Your task to perform on an android device: What's the weather going to be tomorrow? Image 0: 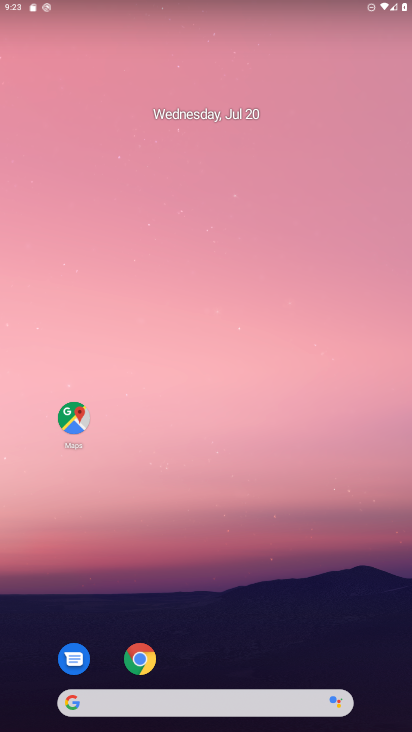
Step 0: drag from (267, 616) to (170, 170)
Your task to perform on an android device: What's the weather going to be tomorrow? Image 1: 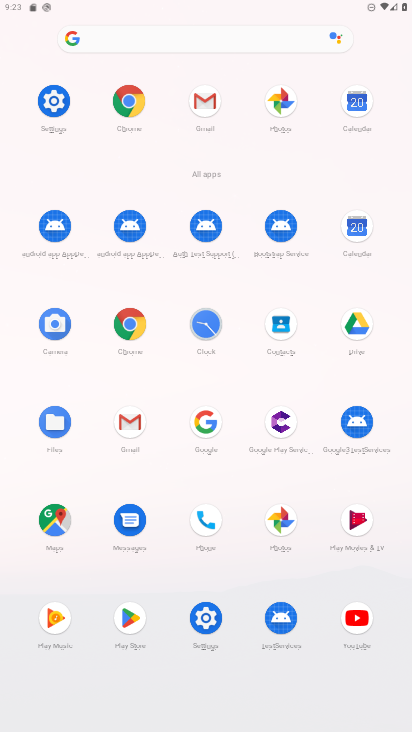
Step 1: click (128, 92)
Your task to perform on an android device: What's the weather going to be tomorrow? Image 2: 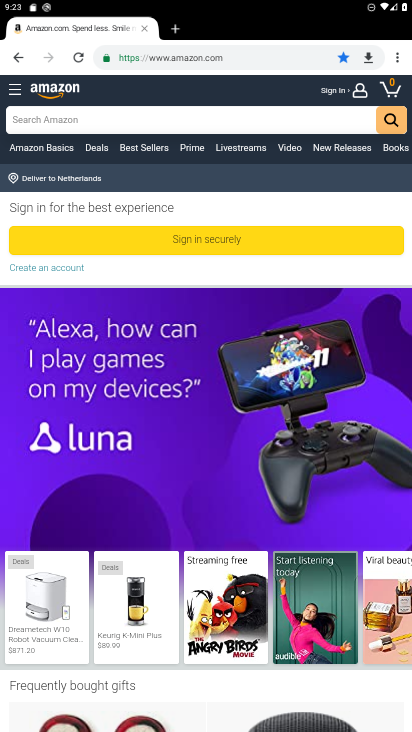
Step 2: click (277, 54)
Your task to perform on an android device: What's the weather going to be tomorrow? Image 3: 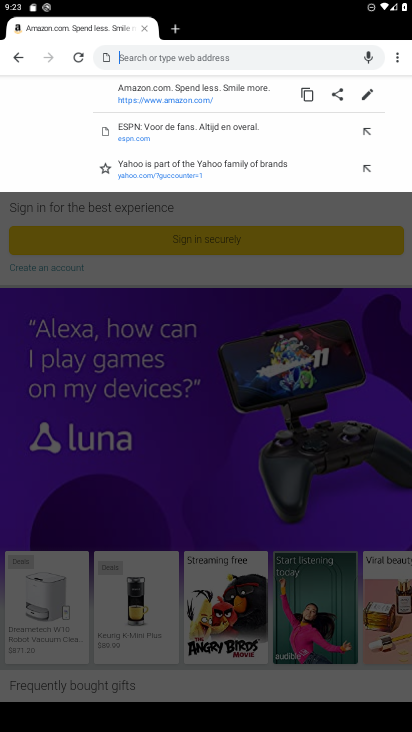
Step 3: type "weather"
Your task to perform on an android device: What's the weather going to be tomorrow? Image 4: 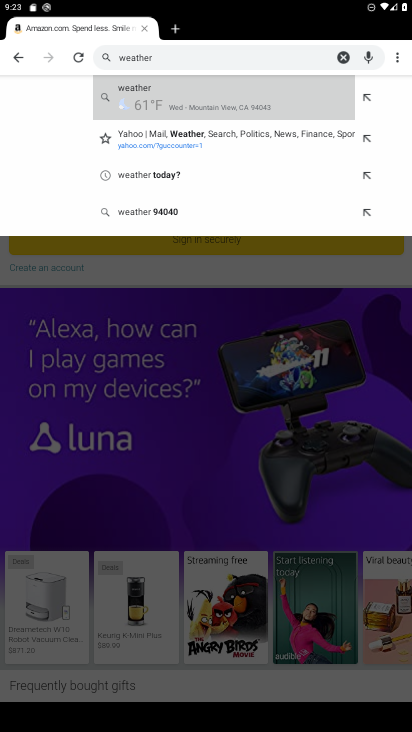
Step 4: click (261, 93)
Your task to perform on an android device: What's the weather going to be tomorrow? Image 5: 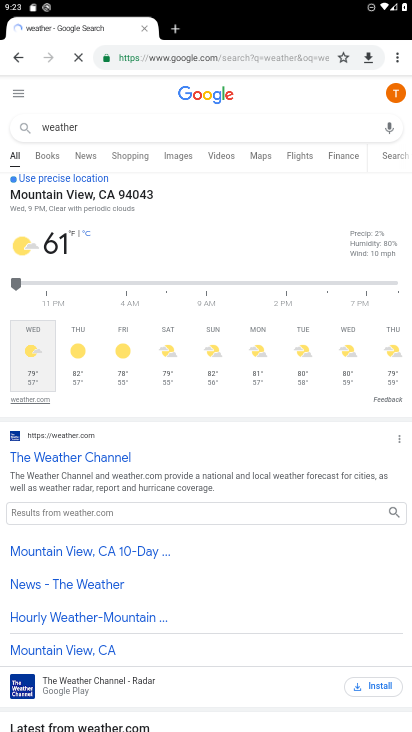
Step 5: click (72, 356)
Your task to perform on an android device: What's the weather going to be tomorrow? Image 6: 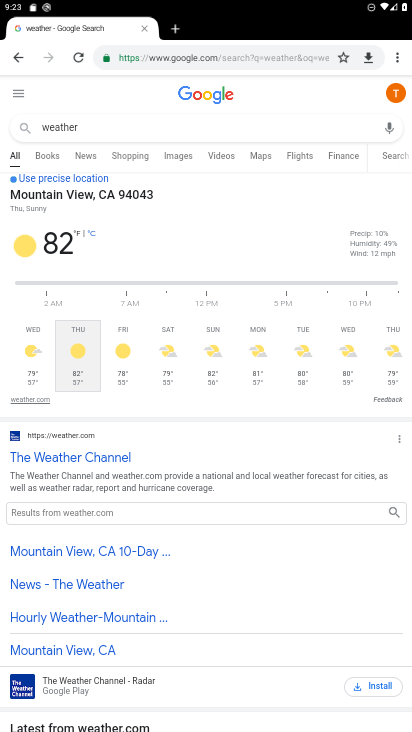
Step 6: task complete